Your task to perform on an android device: Set the phone to "Do not disturb". Image 0: 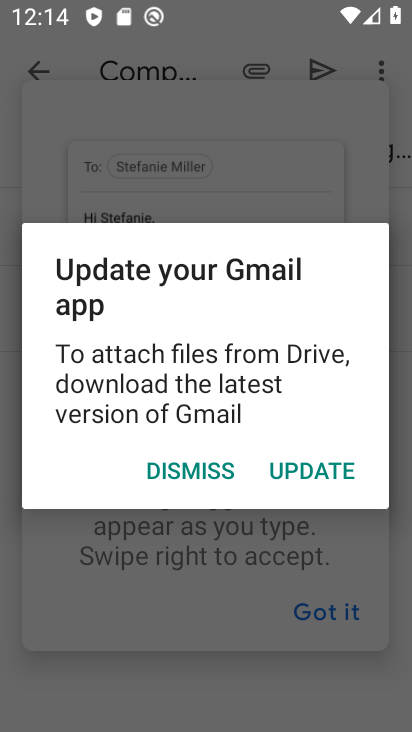
Step 0: press home button
Your task to perform on an android device: Set the phone to "Do not disturb". Image 1: 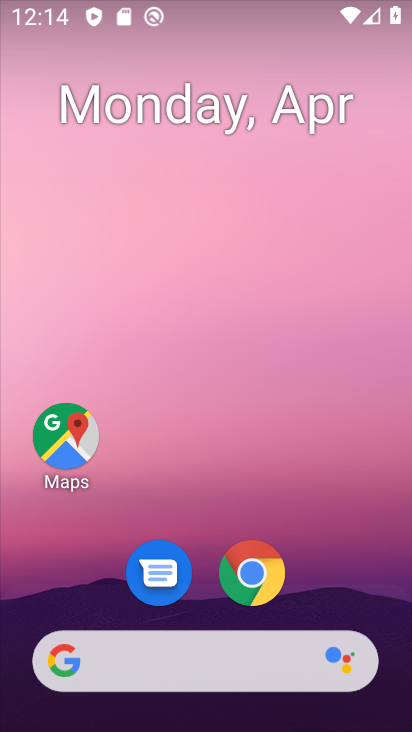
Step 1: drag from (224, 605) to (209, 206)
Your task to perform on an android device: Set the phone to "Do not disturb". Image 2: 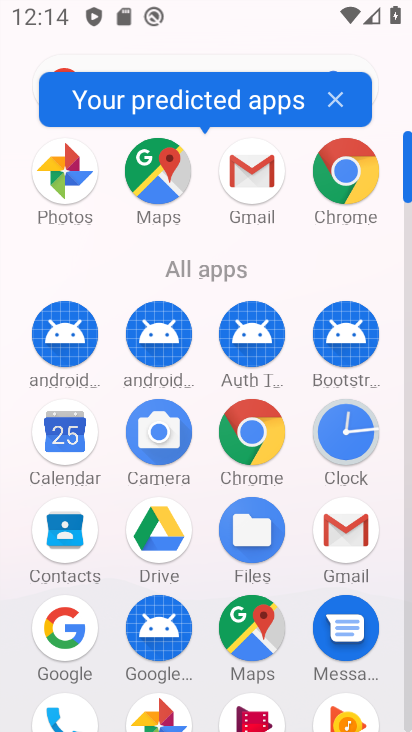
Step 2: drag from (201, 682) to (184, 270)
Your task to perform on an android device: Set the phone to "Do not disturb". Image 3: 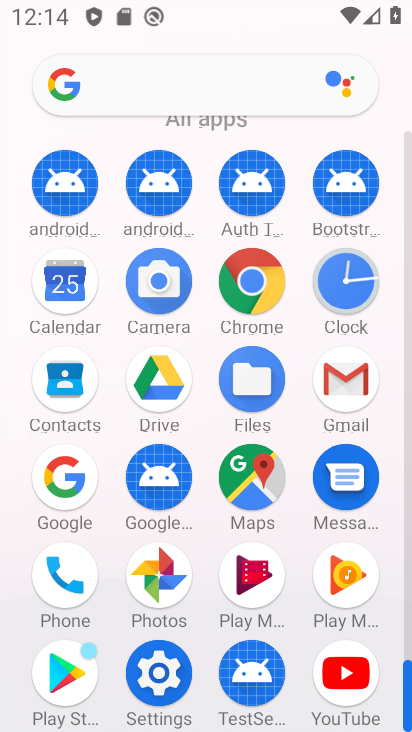
Step 3: click (158, 674)
Your task to perform on an android device: Set the phone to "Do not disturb". Image 4: 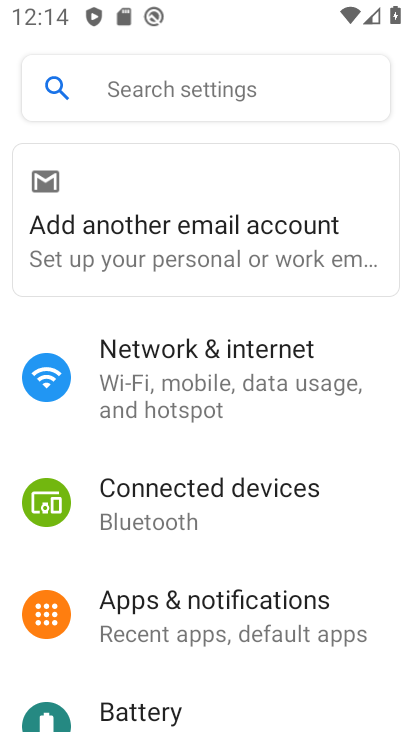
Step 4: drag from (205, 656) to (219, 326)
Your task to perform on an android device: Set the phone to "Do not disturb". Image 5: 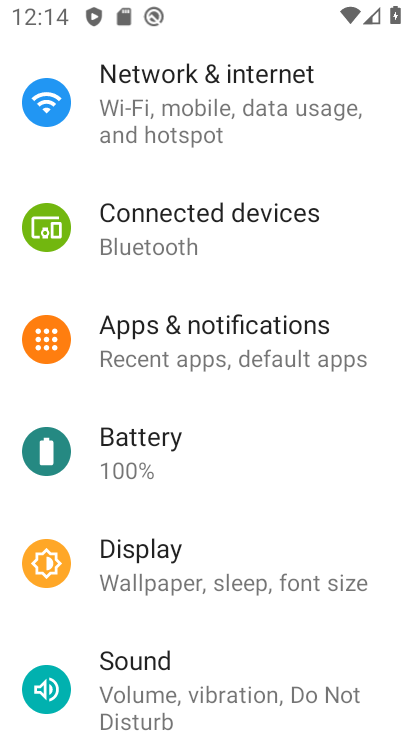
Step 5: click (205, 689)
Your task to perform on an android device: Set the phone to "Do not disturb". Image 6: 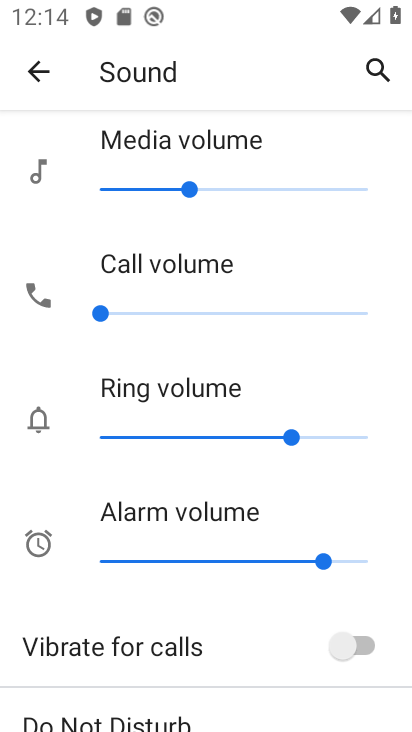
Step 6: drag from (237, 698) to (238, 396)
Your task to perform on an android device: Set the phone to "Do not disturb". Image 7: 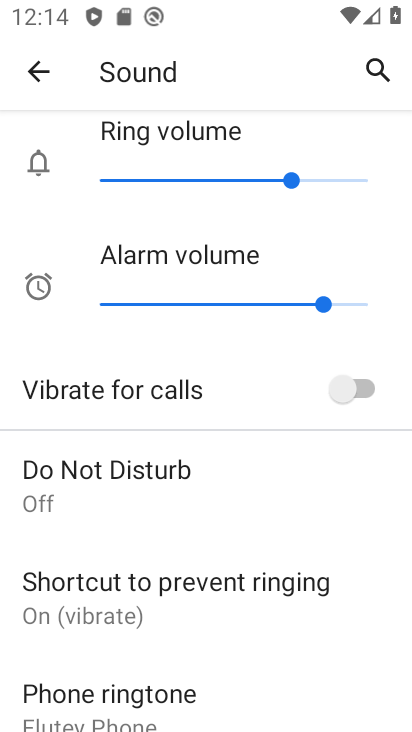
Step 7: click (75, 470)
Your task to perform on an android device: Set the phone to "Do not disturb". Image 8: 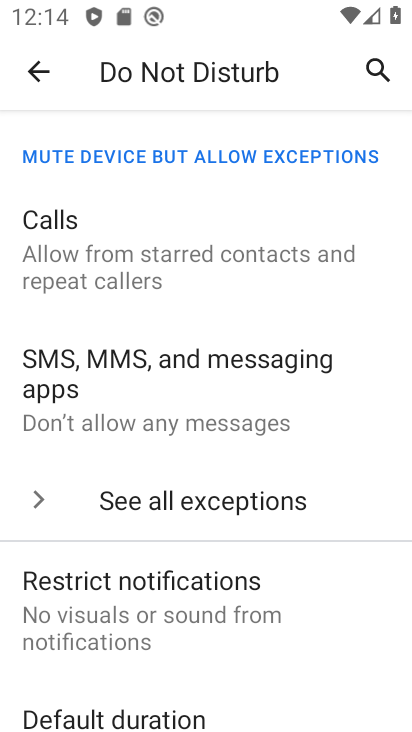
Step 8: drag from (235, 709) to (230, 325)
Your task to perform on an android device: Set the phone to "Do not disturb". Image 9: 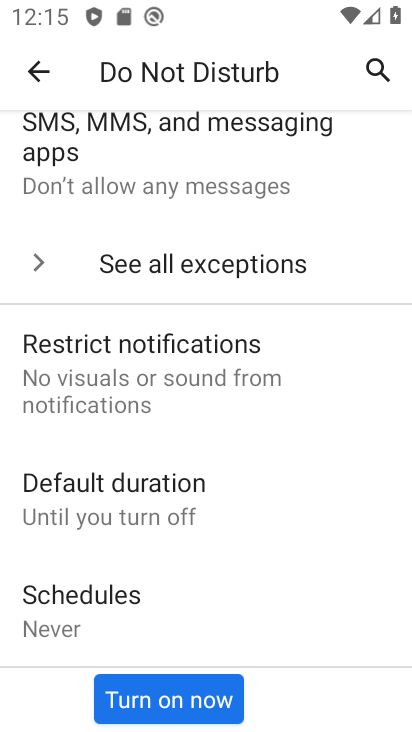
Step 9: click (165, 691)
Your task to perform on an android device: Set the phone to "Do not disturb". Image 10: 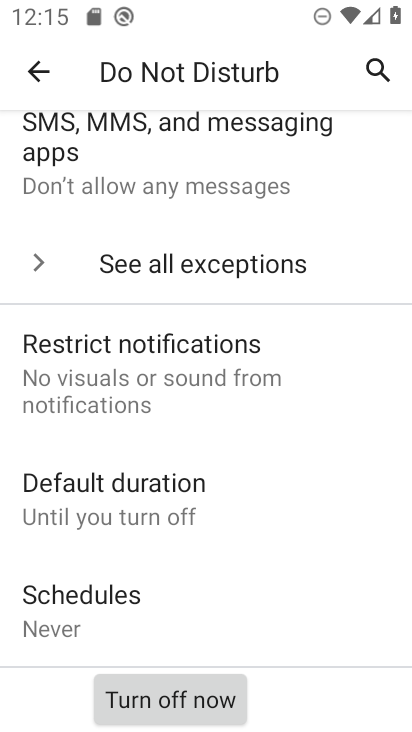
Step 10: task complete